Your task to perform on an android device: open app "Google News" (install if not already installed) Image 0: 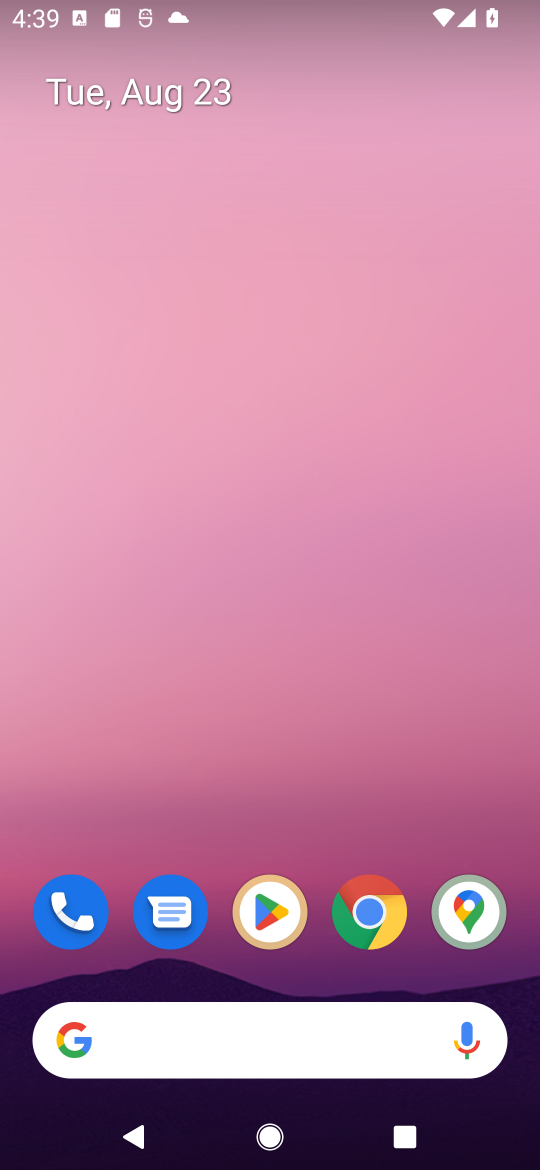
Step 0: drag from (213, 1047) to (256, 139)
Your task to perform on an android device: open app "Google News" (install if not already installed) Image 1: 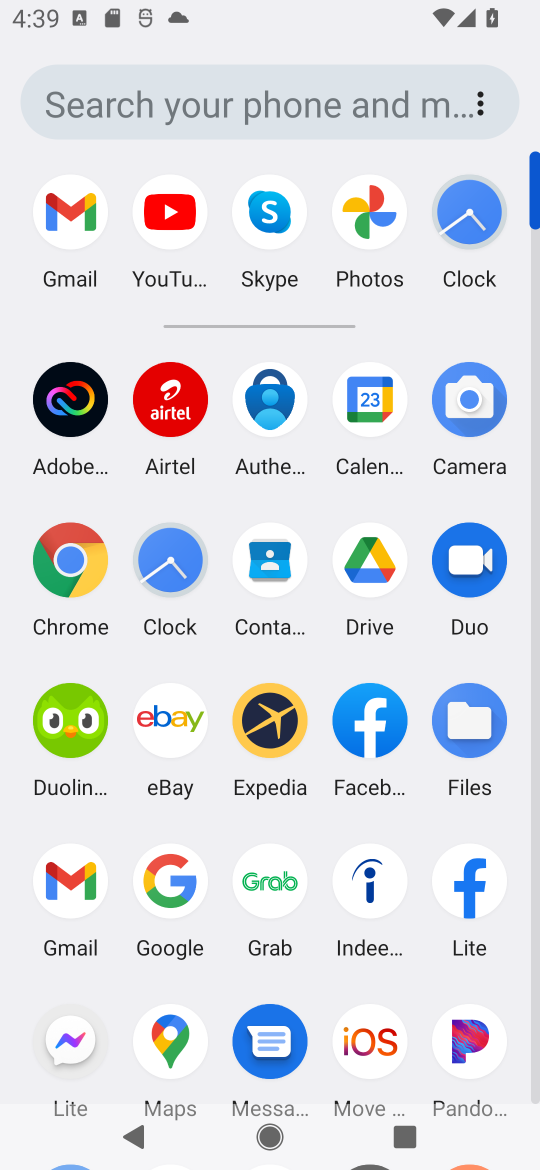
Step 1: drag from (220, 990) to (255, 451)
Your task to perform on an android device: open app "Google News" (install if not already installed) Image 2: 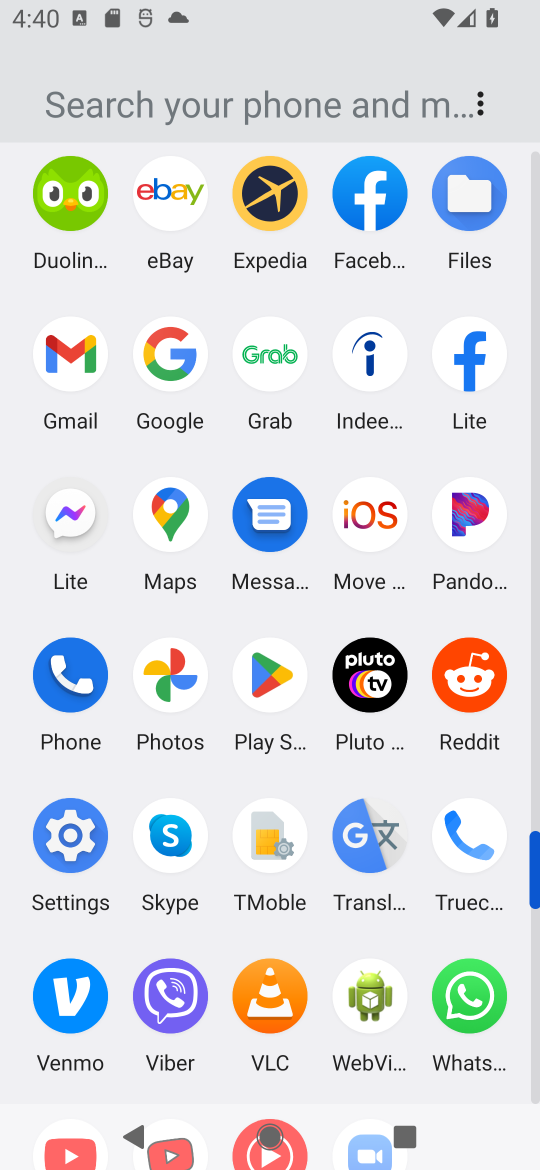
Step 2: click (271, 680)
Your task to perform on an android device: open app "Google News" (install if not already installed) Image 3: 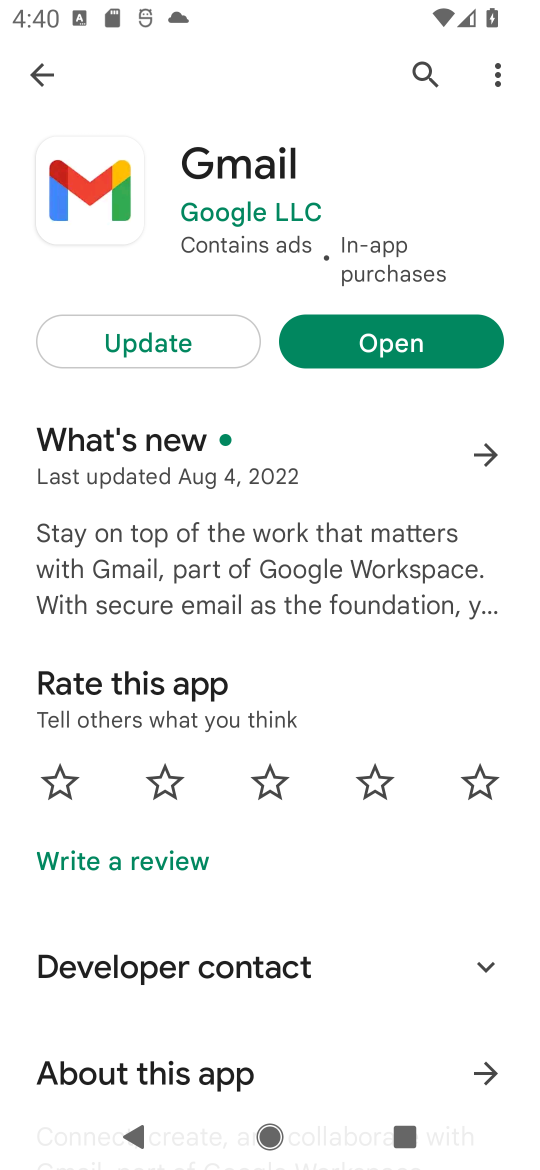
Step 3: press home button
Your task to perform on an android device: open app "Google News" (install if not already installed) Image 4: 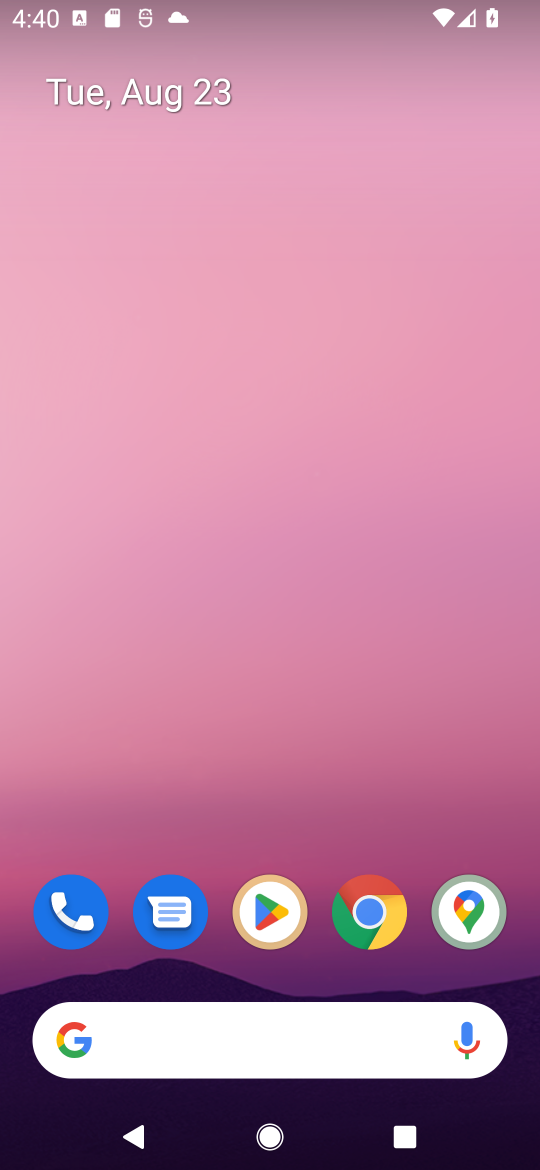
Step 4: drag from (229, 1012) to (322, 88)
Your task to perform on an android device: open app "Google News" (install if not already installed) Image 5: 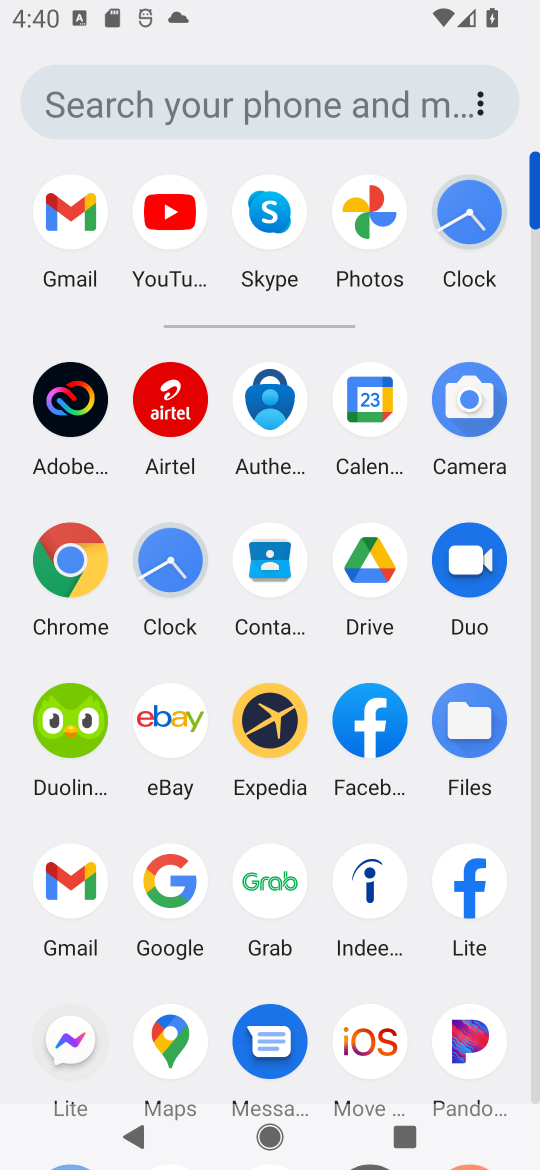
Step 5: drag from (214, 965) to (237, 507)
Your task to perform on an android device: open app "Google News" (install if not already installed) Image 6: 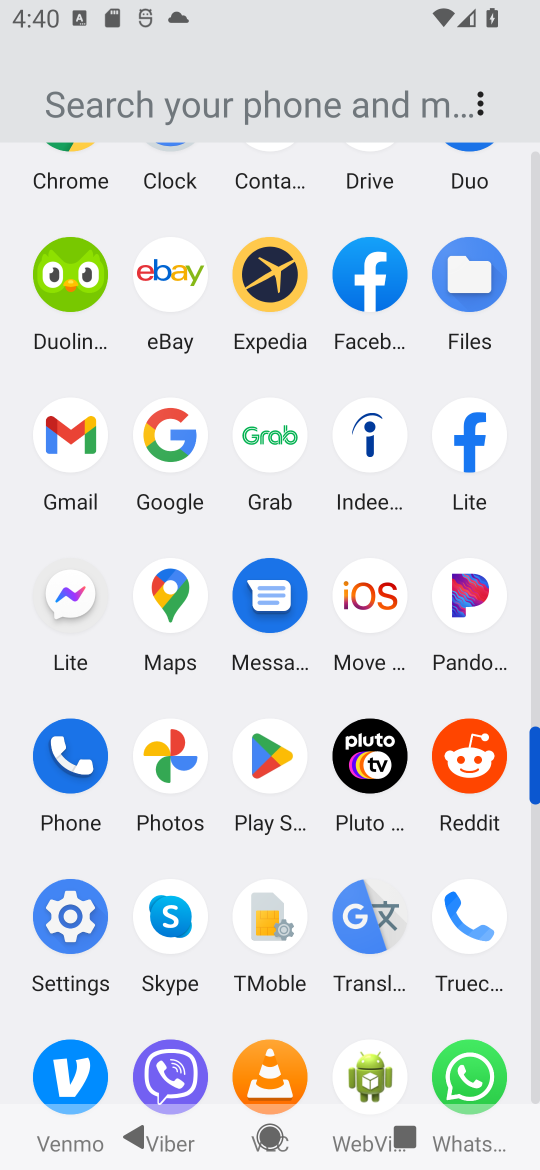
Step 6: click (268, 765)
Your task to perform on an android device: open app "Google News" (install if not already installed) Image 7: 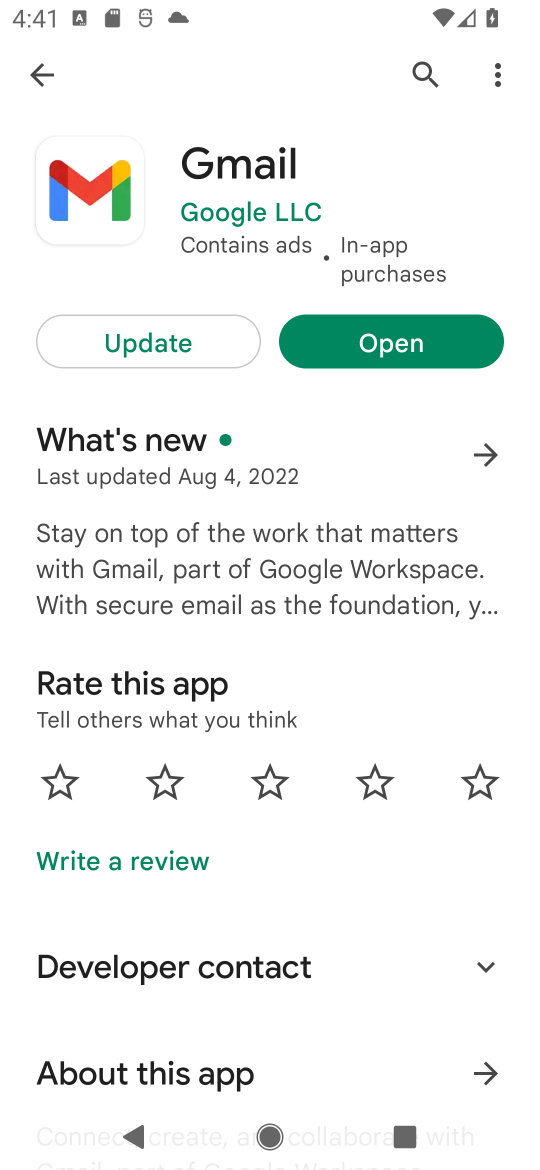
Step 7: press back button
Your task to perform on an android device: open app "Google News" (install if not already installed) Image 8: 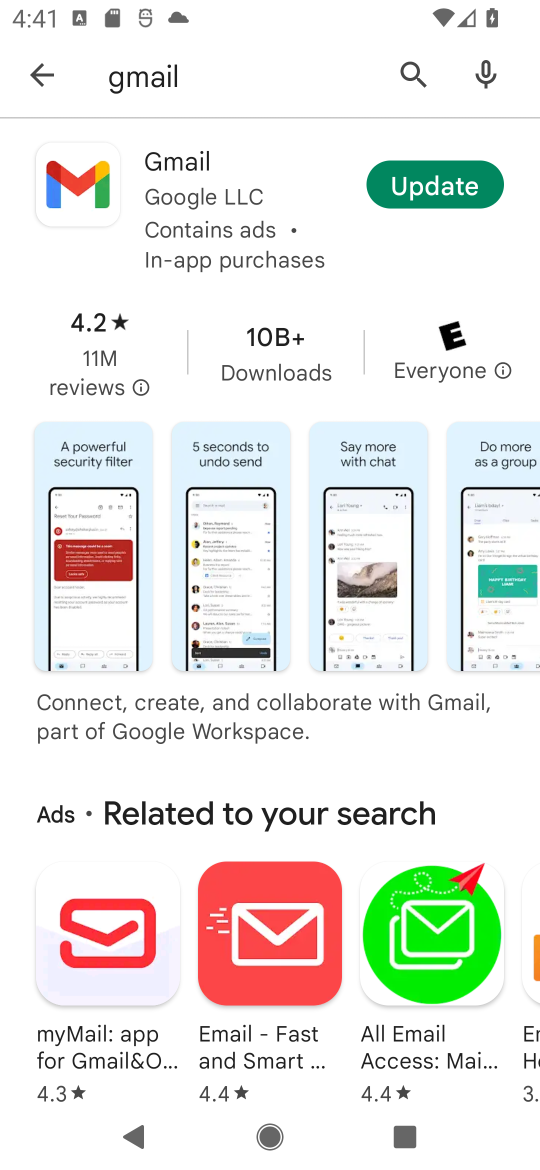
Step 8: press back button
Your task to perform on an android device: open app "Google News" (install if not already installed) Image 9: 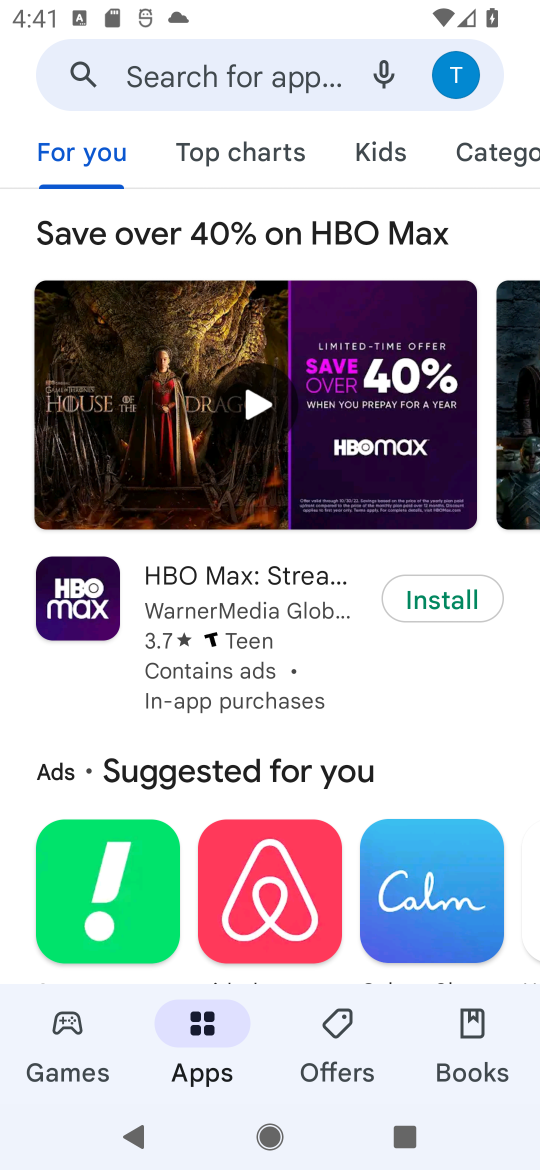
Step 9: click (283, 87)
Your task to perform on an android device: open app "Google News" (install if not already installed) Image 10: 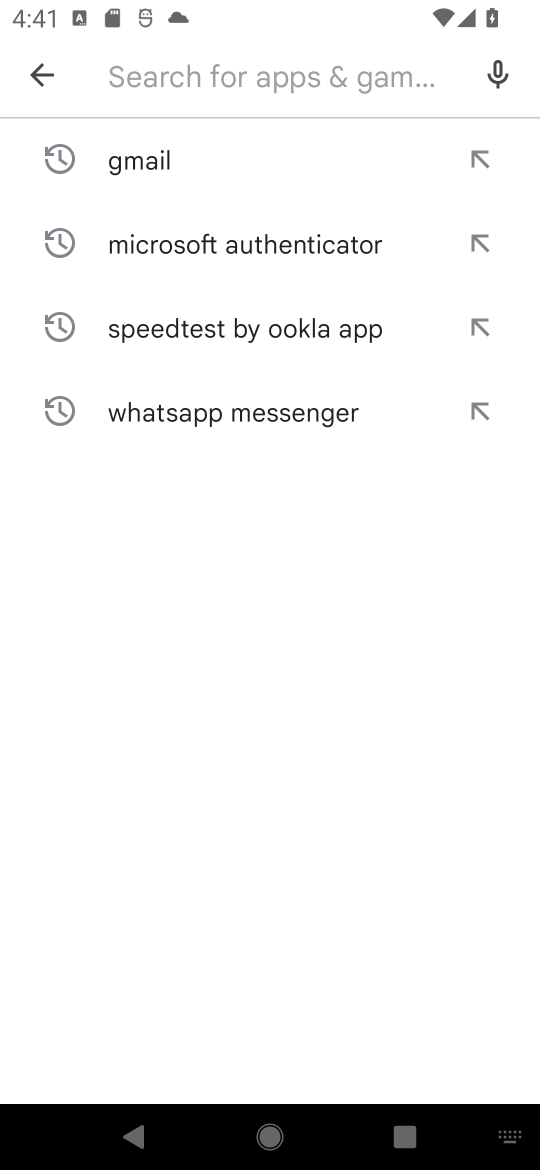
Step 10: type "Google News"
Your task to perform on an android device: open app "Google News" (install if not already installed) Image 11: 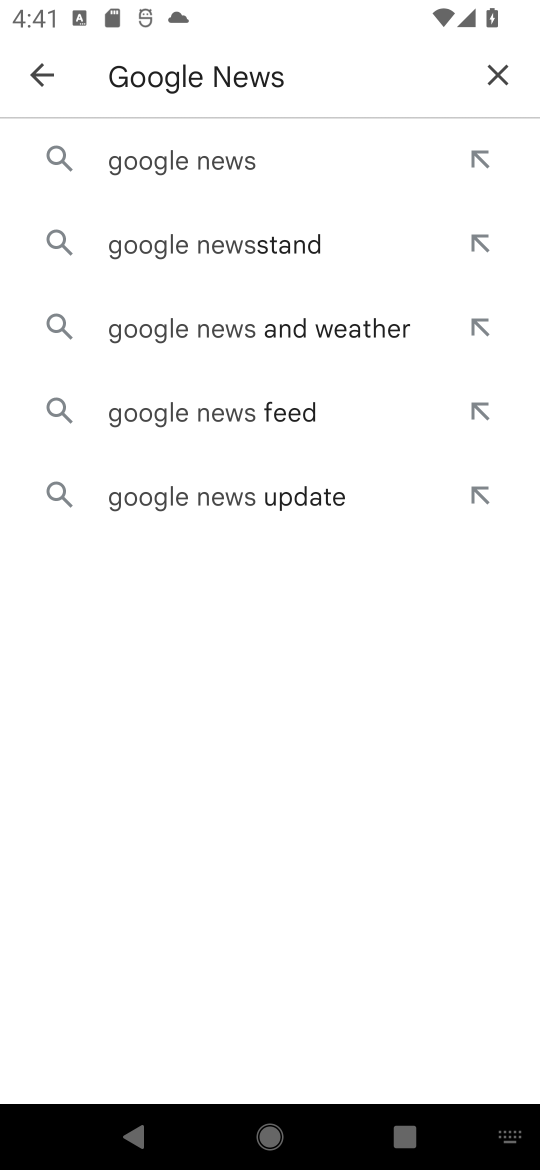
Step 11: click (168, 167)
Your task to perform on an android device: open app "Google News" (install if not already installed) Image 12: 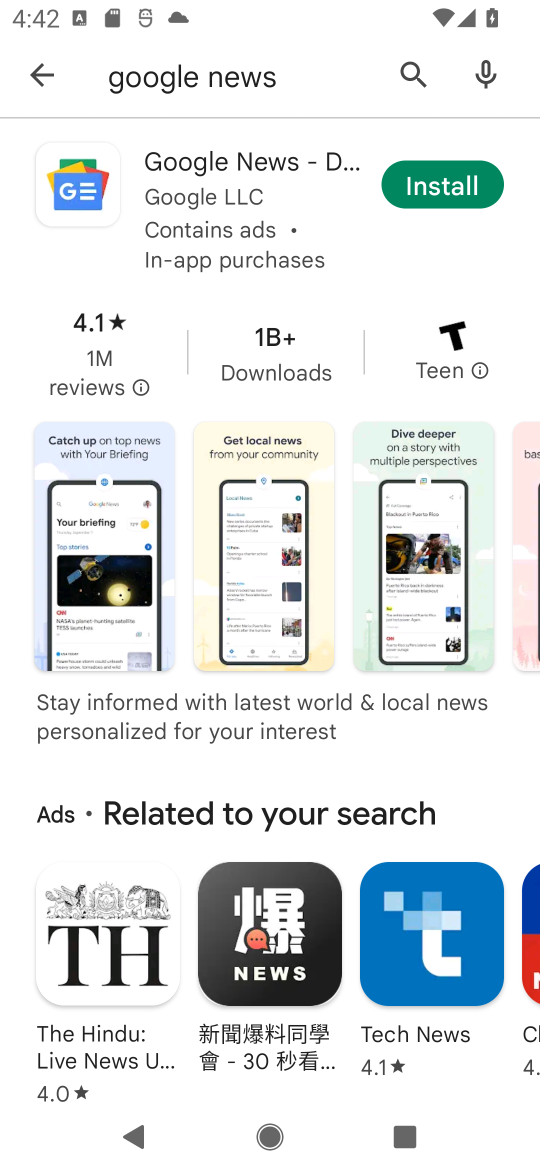
Step 12: click (449, 192)
Your task to perform on an android device: open app "Google News" (install if not already installed) Image 13: 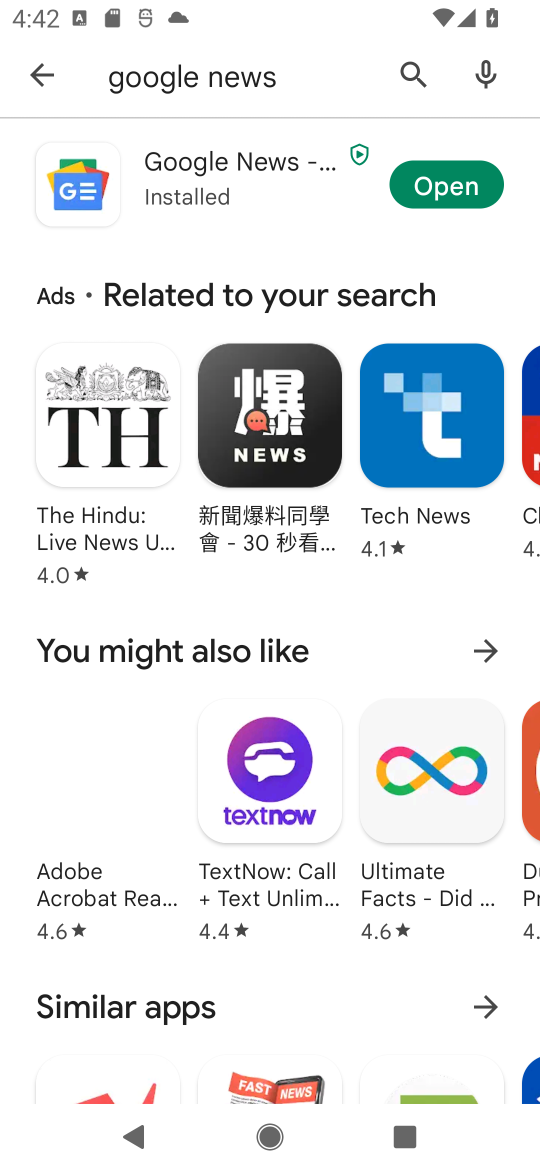
Step 13: click (456, 188)
Your task to perform on an android device: open app "Google News" (install if not already installed) Image 14: 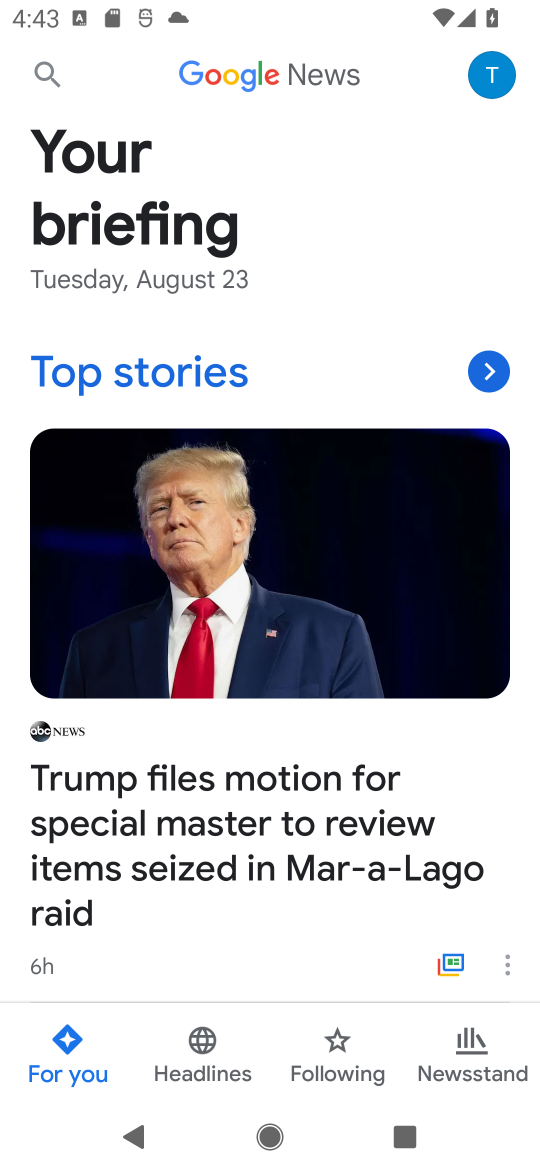
Step 14: task complete